Your task to perform on an android device: Go to CNN.com Image 0: 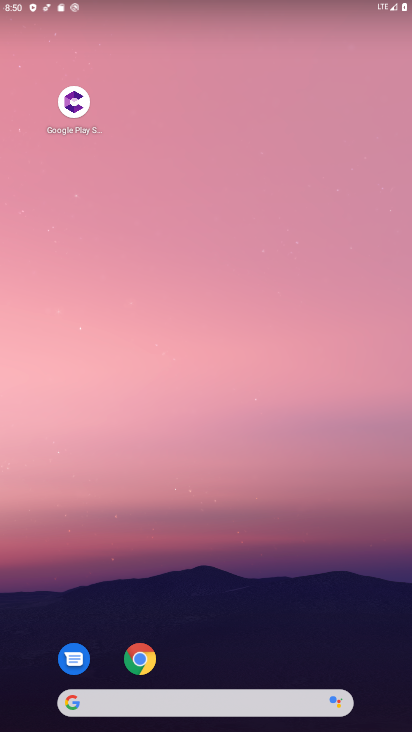
Step 0: click (141, 669)
Your task to perform on an android device: Go to CNN.com Image 1: 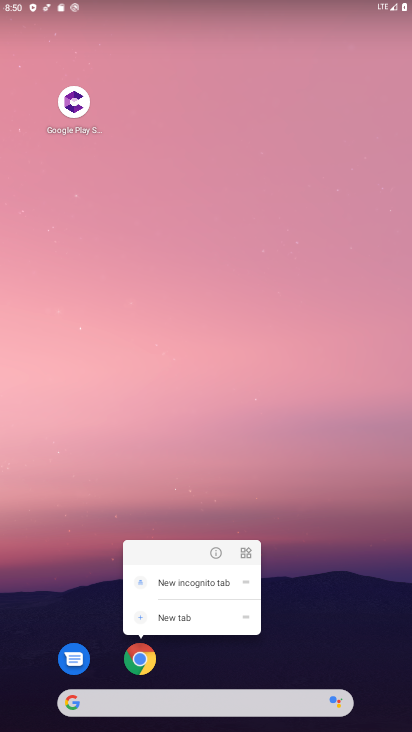
Step 1: click (141, 669)
Your task to perform on an android device: Go to CNN.com Image 2: 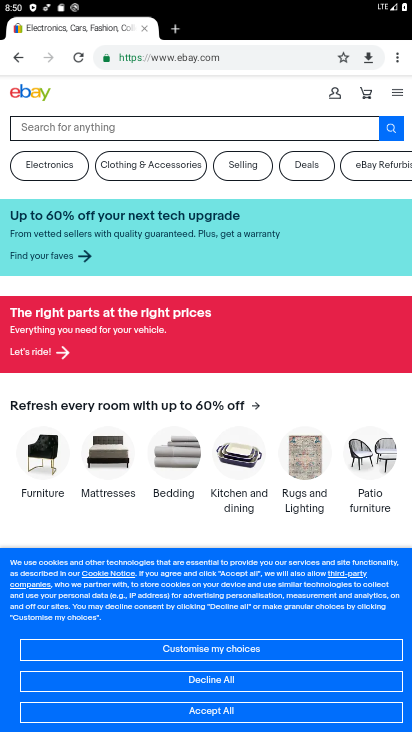
Step 2: click (175, 57)
Your task to perform on an android device: Go to CNN.com Image 3: 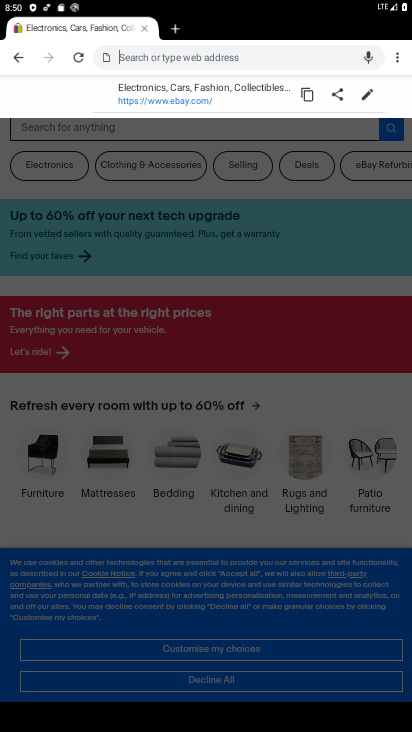
Step 3: type "cnn.com"
Your task to perform on an android device: Go to CNN.com Image 4: 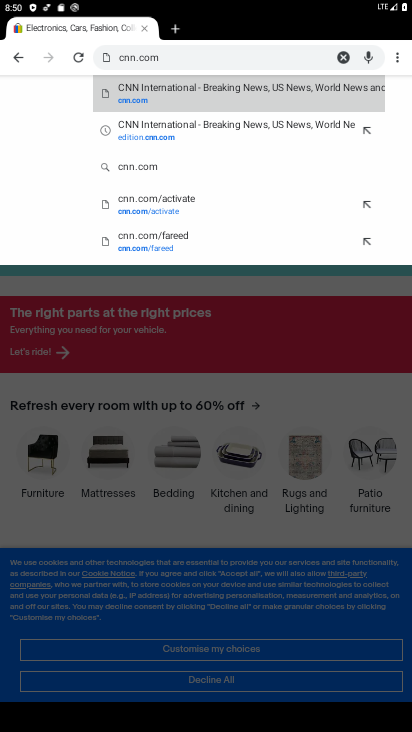
Step 4: click (145, 89)
Your task to perform on an android device: Go to CNN.com Image 5: 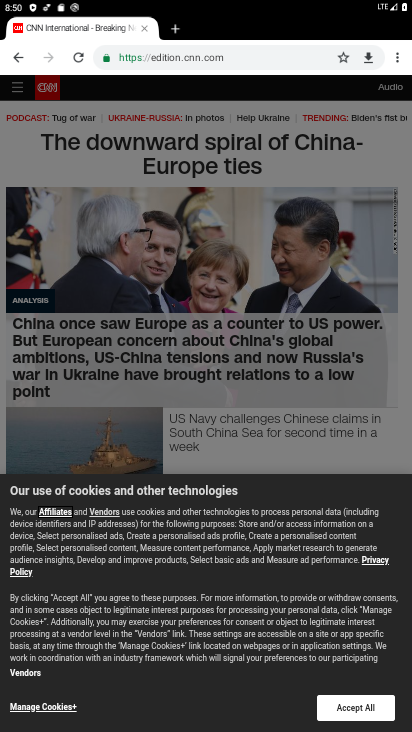
Step 5: task complete